Your task to perform on an android device: Go to eBay Image 0: 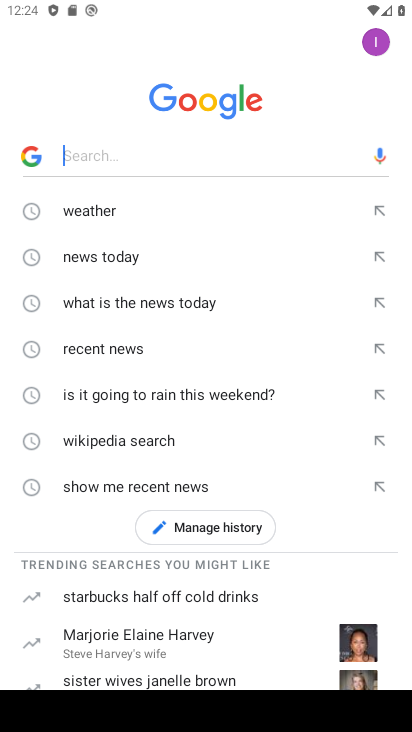
Step 0: type "ebay"
Your task to perform on an android device: Go to eBay Image 1: 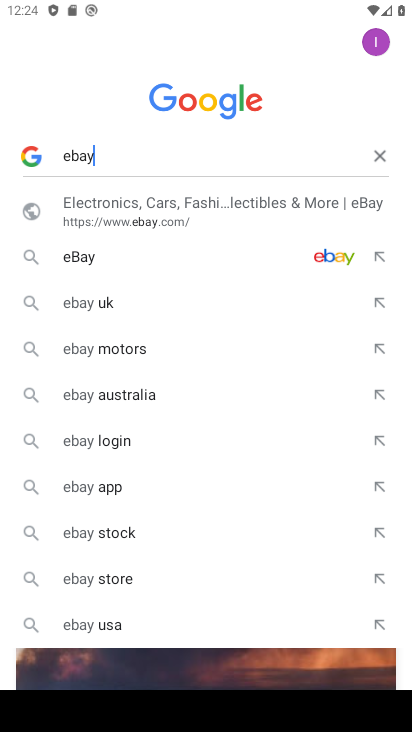
Step 1: click (107, 250)
Your task to perform on an android device: Go to eBay Image 2: 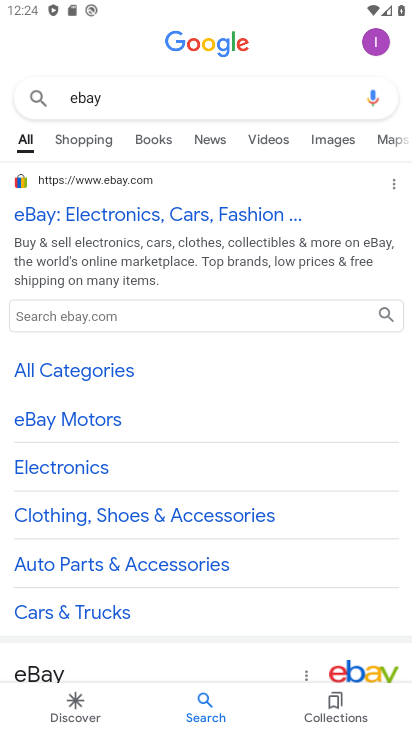
Step 2: task complete